Your task to perform on an android device: Show me the alarms in the clock app Image 0: 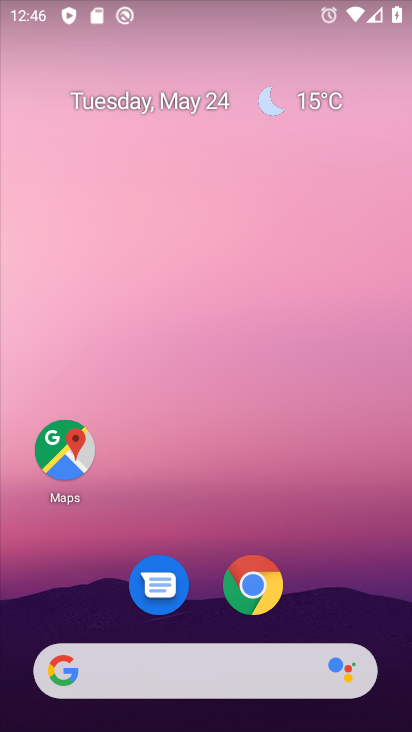
Step 0: drag from (227, 512) to (220, 0)
Your task to perform on an android device: Show me the alarms in the clock app Image 1: 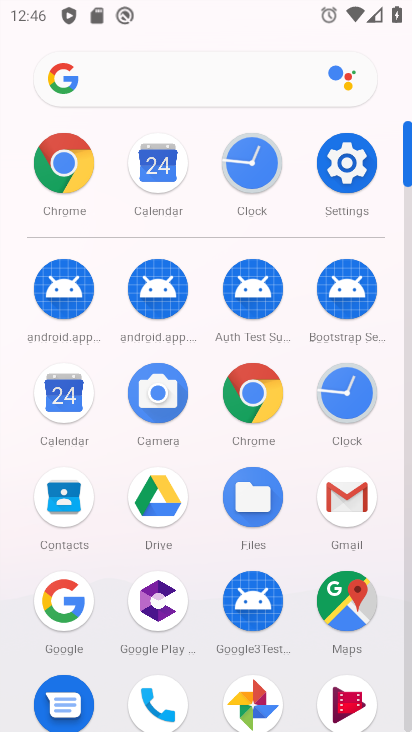
Step 1: click (270, 161)
Your task to perform on an android device: Show me the alarms in the clock app Image 2: 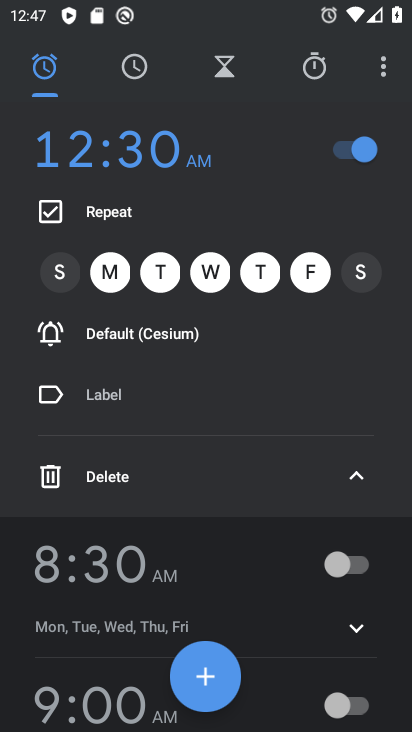
Step 2: click (236, 154)
Your task to perform on an android device: Show me the alarms in the clock app Image 3: 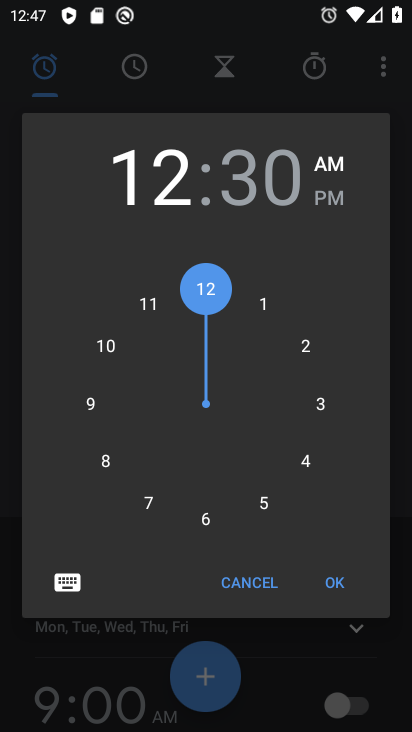
Step 3: click (333, 583)
Your task to perform on an android device: Show me the alarms in the clock app Image 4: 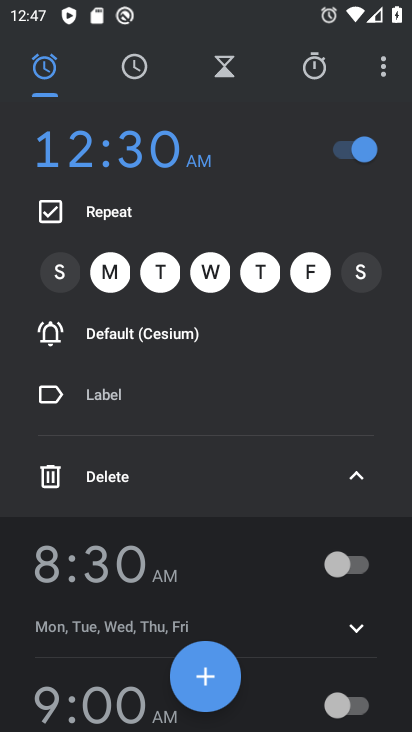
Step 4: task complete